Your task to perform on an android device: Open Google Image 0: 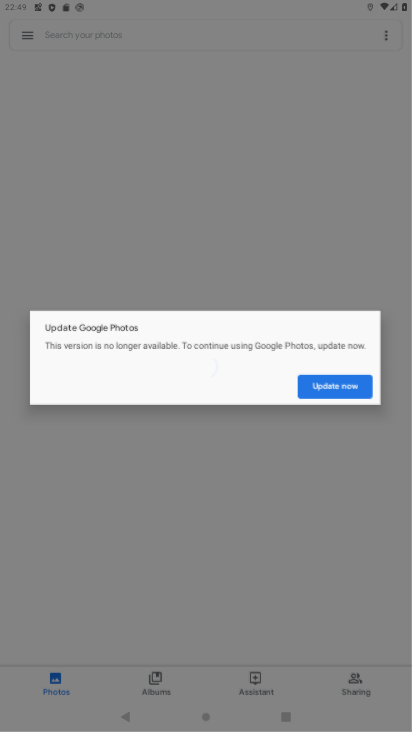
Step 0: press home button
Your task to perform on an android device: Open Google Image 1: 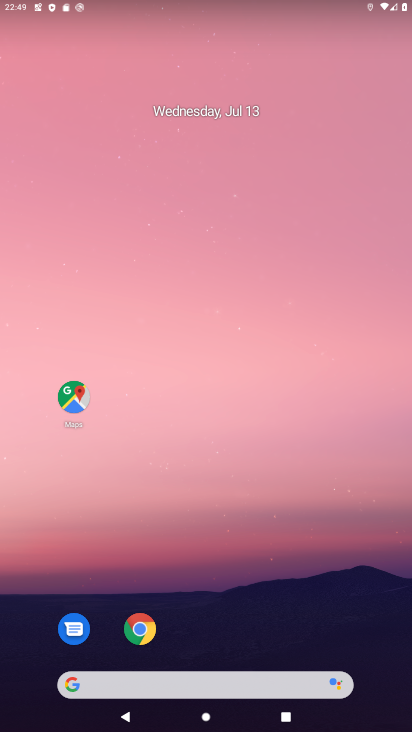
Step 1: drag from (214, 644) to (248, 254)
Your task to perform on an android device: Open Google Image 2: 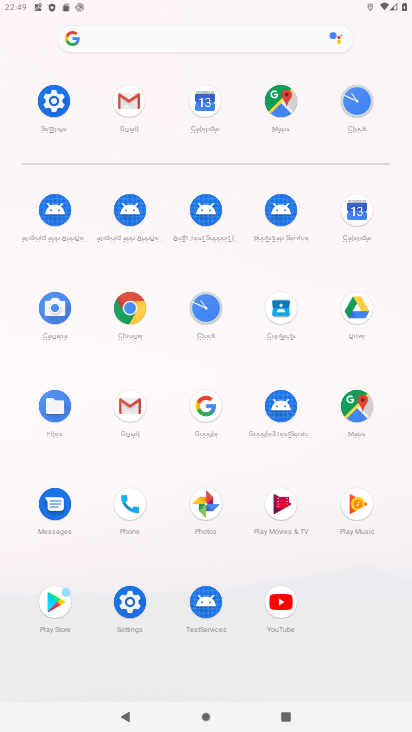
Step 2: click (208, 401)
Your task to perform on an android device: Open Google Image 3: 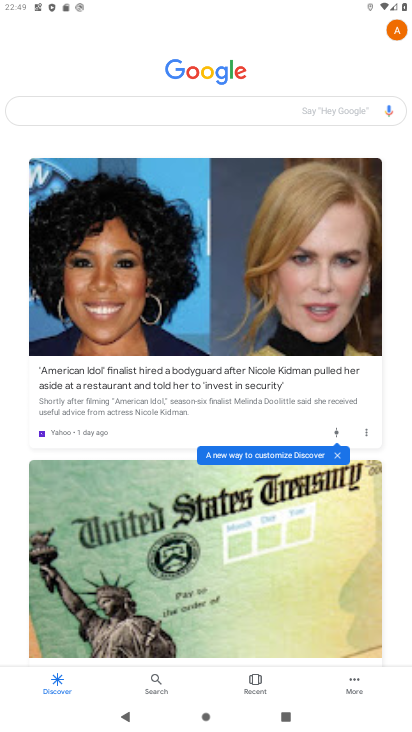
Step 3: task complete